Your task to perform on an android device: Open the phone app and click the voicemail tab. Image 0: 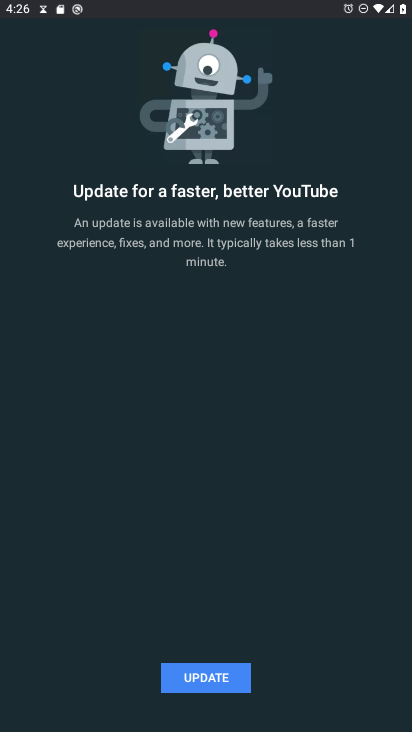
Step 0: press home button
Your task to perform on an android device: Open the phone app and click the voicemail tab. Image 1: 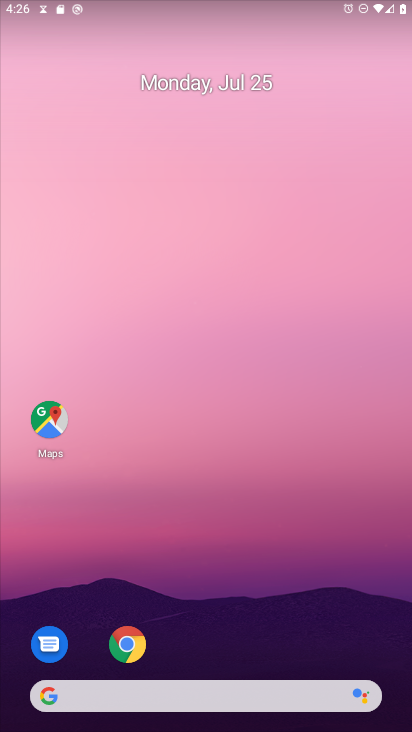
Step 1: drag from (265, 609) to (288, 105)
Your task to perform on an android device: Open the phone app and click the voicemail tab. Image 2: 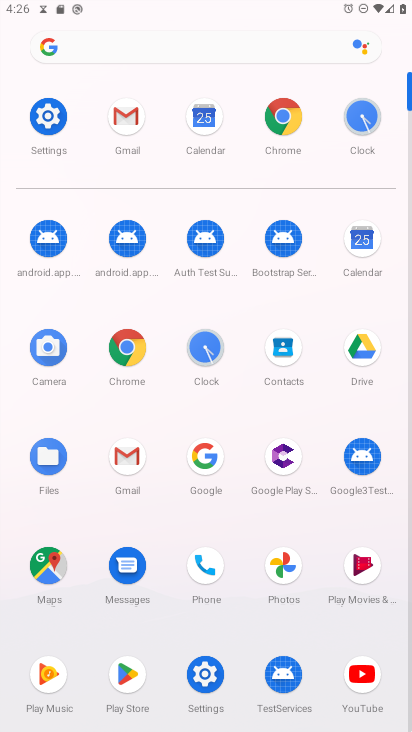
Step 2: click (213, 554)
Your task to perform on an android device: Open the phone app and click the voicemail tab. Image 3: 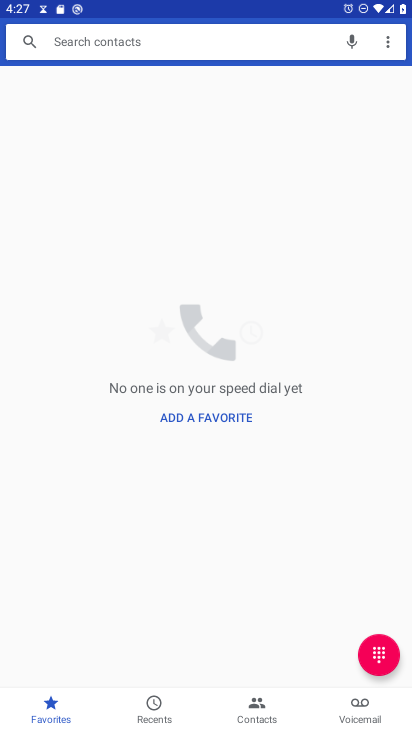
Step 3: click (361, 703)
Your task to perform on an android device: Open the phone app and click the voicemail tab. Image 4: 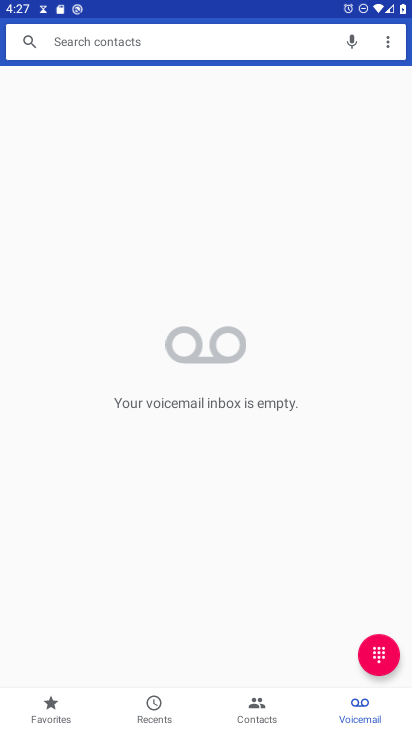
Step 4: task complete